Your task to perform on an android device: change the upload size in google photos Image 0: 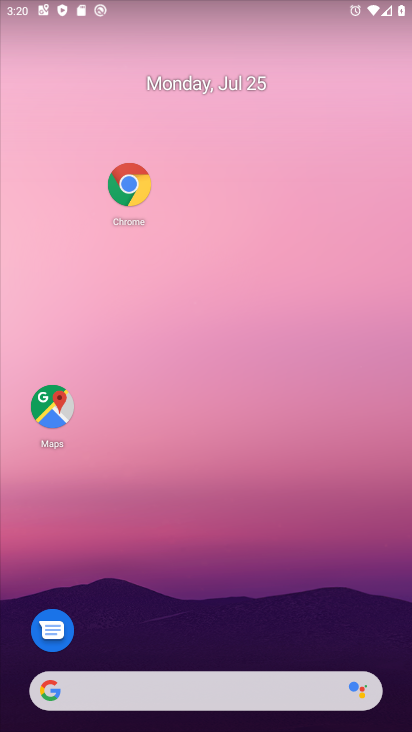
Step 0: drag from (244, 633) to (248, 172)
Your task to perform on an android device: change the upload size in google photos Image 1: 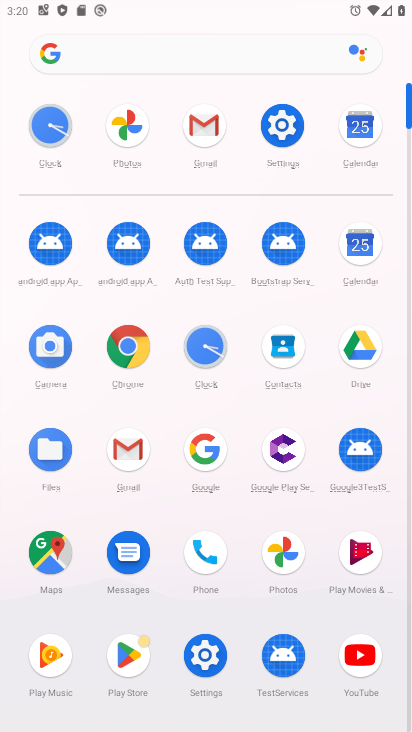
Step 1: click (140, 142)
Your task to perform on an android device: change the upload size in google photos Image 2: 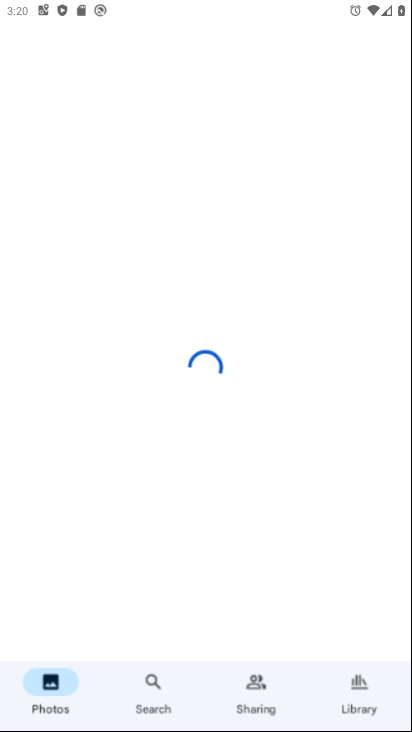
Step 2: task complete